Your task to perform on an android device: Search for Mexican restaurants on Maps Image 0: 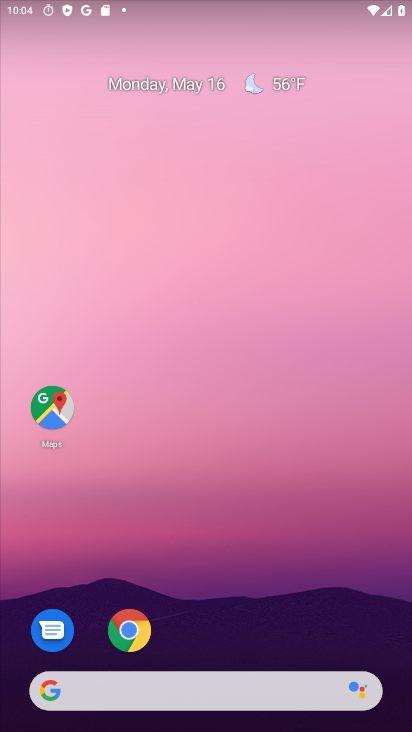
Step 0: click (62, 408)
Your task to perform on an android device: Search for Mexican restaurants on Maps Image 1: 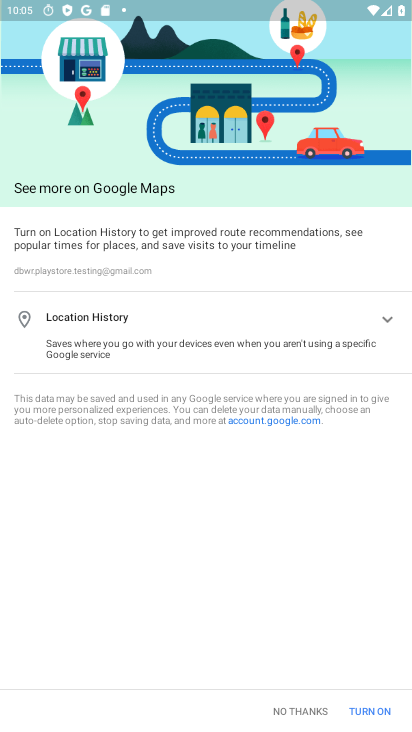
Step 1: click (306, 713)
Your task to perform on an android device: Search for Mexican restaurants on Maps Image 2: 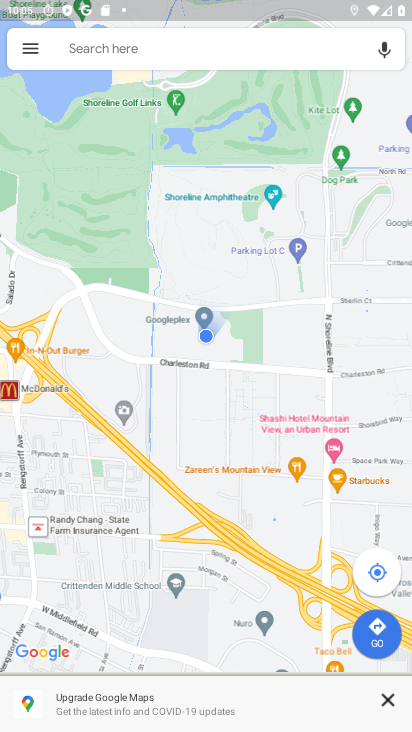
Step 2: click (168, 58)
Your task to perform on an android device: Search for Mexican restaurants on Maps Image 3: 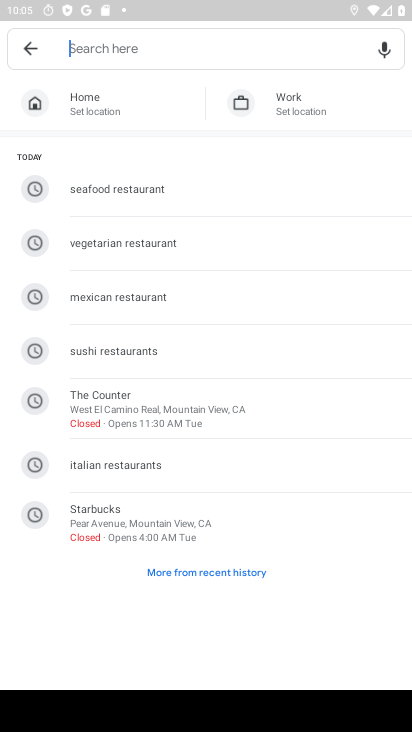
Step 3: type "mexican restaurants"
Your task to perform on an android device: Search for Mexican restaurants on Maps Image 4: 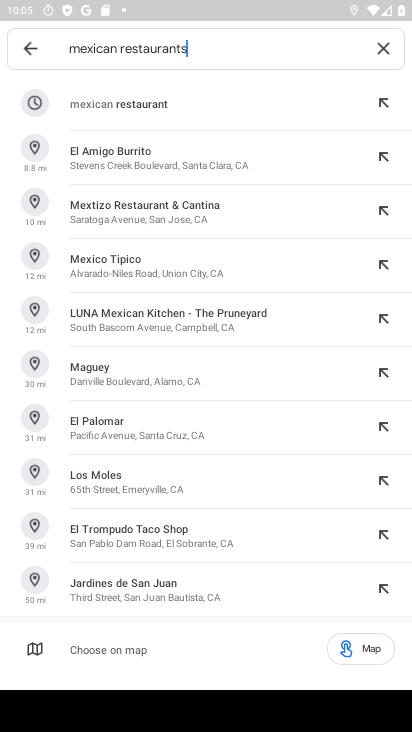
Step 4: click (105, 115)
Your task to perform on an android device: Search for Mexican restaurants on Maps Image 5: 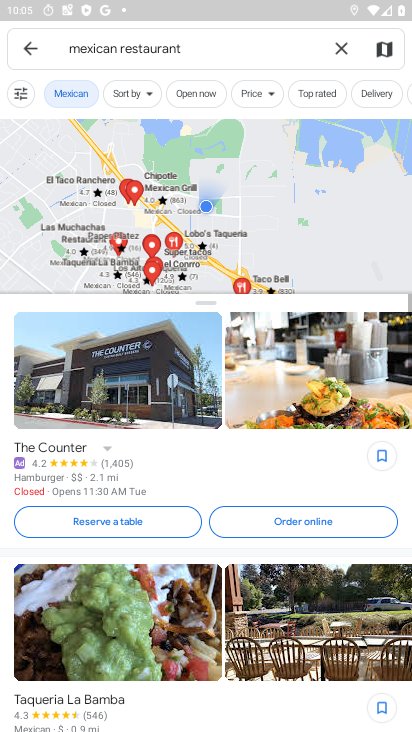
Step 5: task complete